Your task to perform on an android device: delete browsing data in the chrome app Image 0: 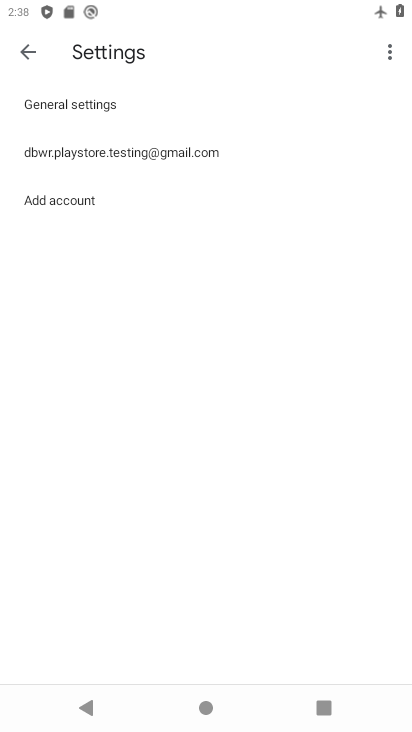
Step 0: press home button
Your task to perform on an android device: delete browsing data in the chrome app Image 1: 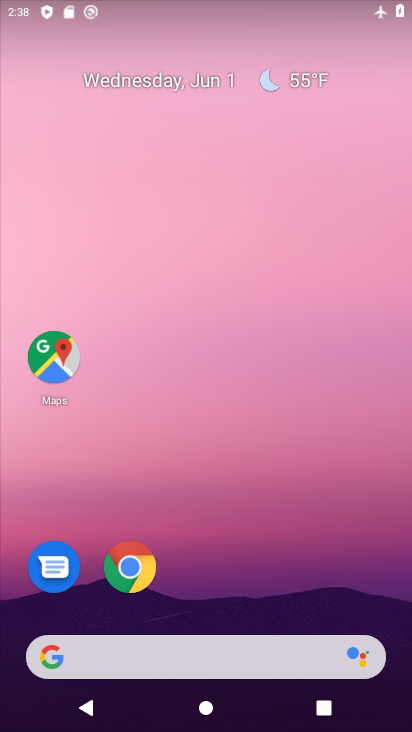
Step 1: click (146, 577)
Your task to perform on an android device: delete browsing data in the chrome app Image 2: 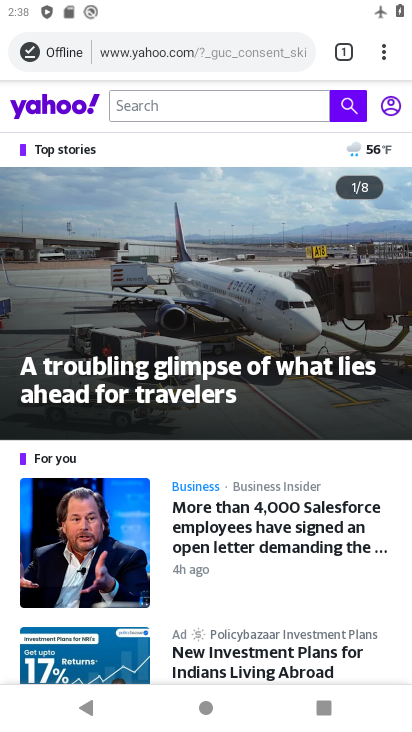
Step 2: click (388, 62)
Your task to perform on an android device: delete browsing data in the chrome app Image 3: 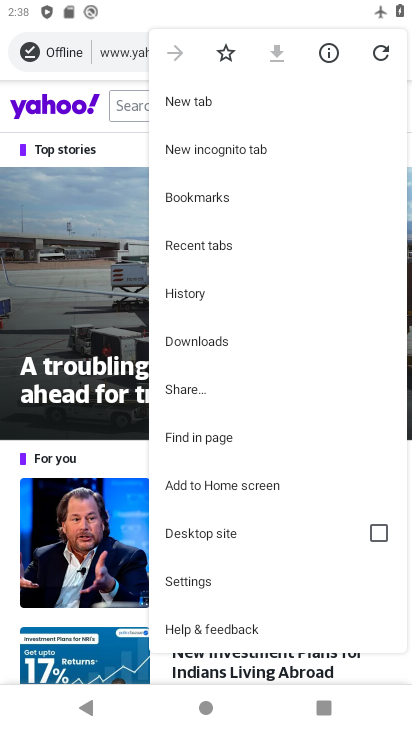
Step 3: click (204, 585)
Your task to perform on an android device: delete browsing data in the chrome app Image 4: 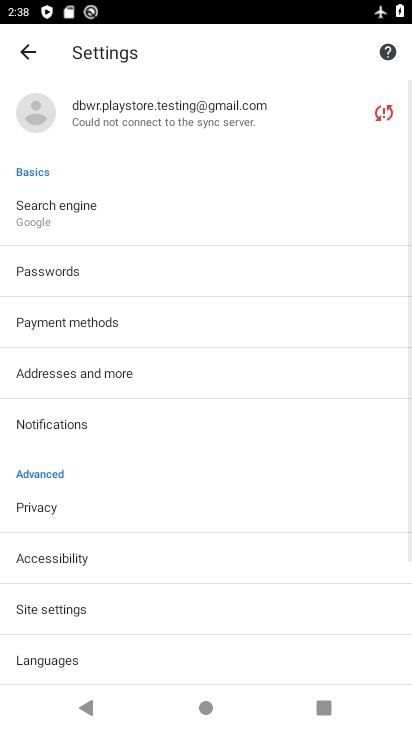
Step 4: click (39, 513)
Your task to perform on an android device: delete browsing data in the chrome app Image 5: 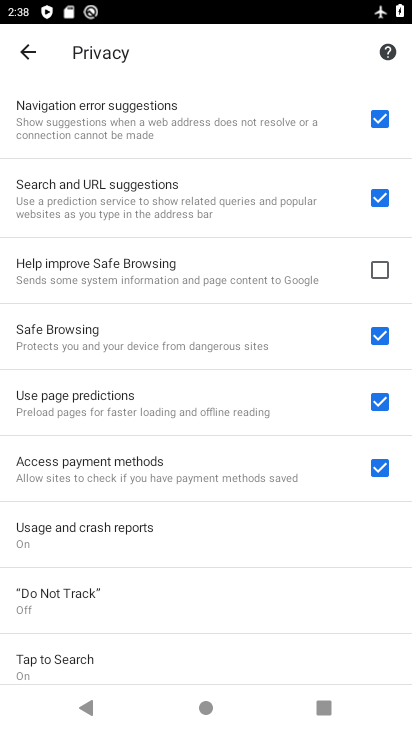
Step 5: drag from (235, 629) to (267, 212)
Your task to perform on an android device: delete browsing data in the chrome app Image 6: 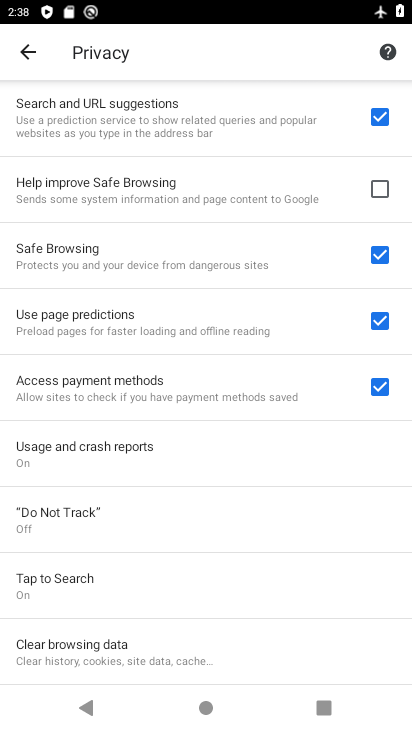
Step 6: click (98, 653)
Your task to perform on an android device: delete browsing data in the chrome app Image 7: 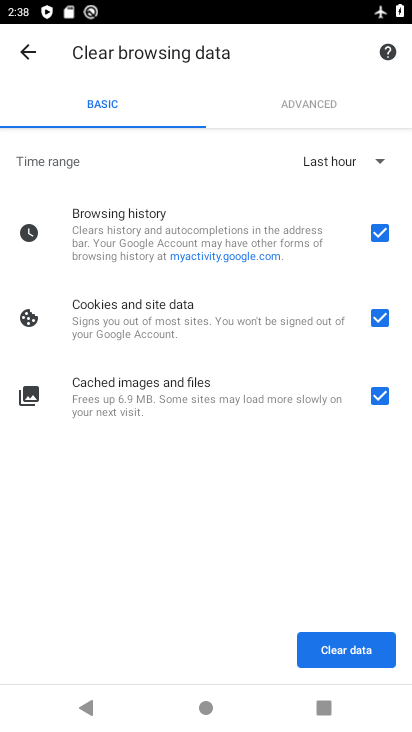
Step 7: click (375, 404)
Your task to perform on an android device: delete browsing data in the chrome app Image 8: 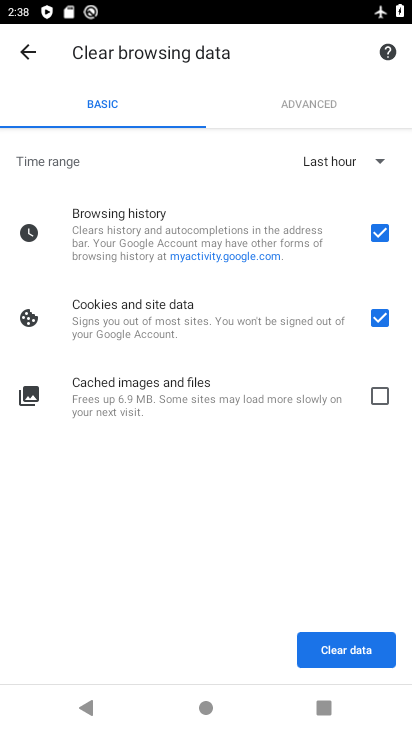
Step 8: click (381, 332)
Your task to perform on an android device: delete browsing data in the chrome app Image 9: 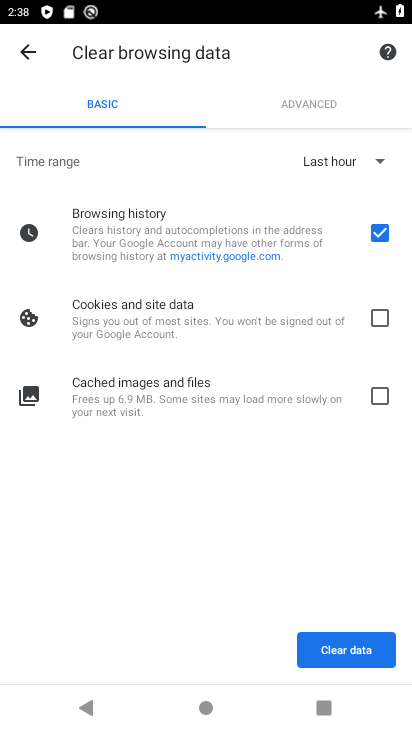
Step 9: click (377, 168)
Your task to perform on an android device: delete browsing data in the chrome app Image 10: 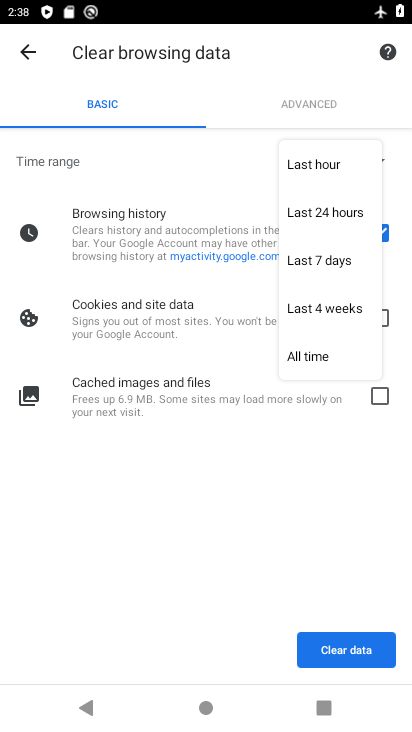
Step 10: click (324, 362)
Your task to perform on an android device: delete browsing data in the chrome app Image 11: 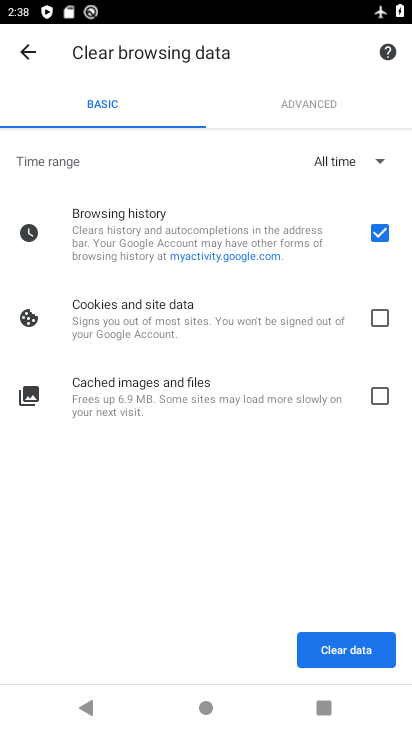
Step 11: click (343, 648)
Your task to perform on an android device: delete browsing data in the chrome app Image 12: 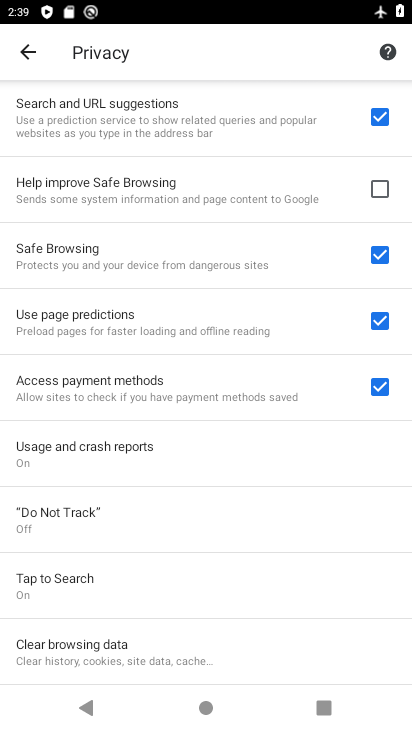
Step 12: task complete